Your task to perform on an android device: find photos in the google photos app Image 0: 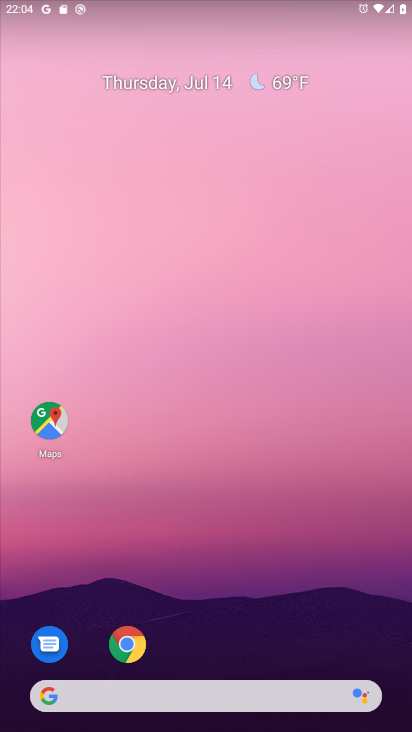
Step 0: drag from (213, 605) to (180, 84)
Your task to perform on an android device: find photos in the google photos app Image 1: 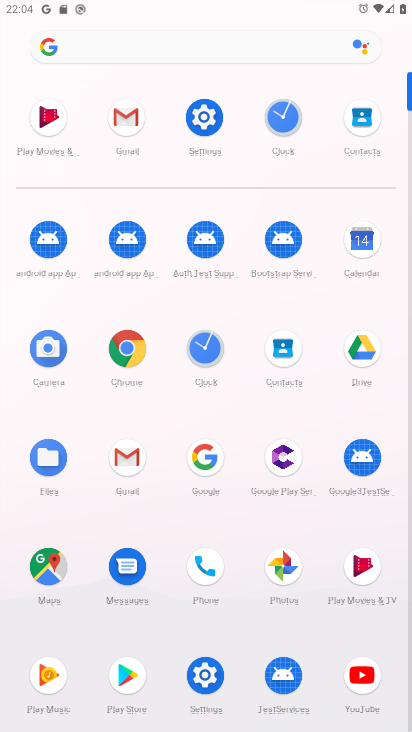
Step 1: click (290, 574)
Your task to perform on an android device: find photos in the google photos app Image 2: 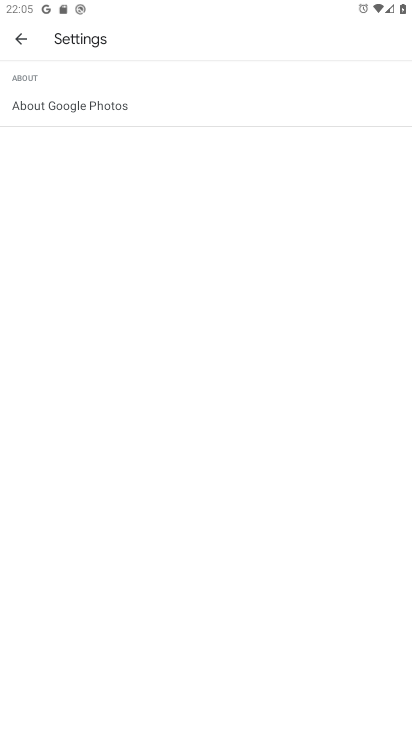
Step 2: click (16, 41)
Your task to perform on an android device: find photos in the google photos app Image 3: 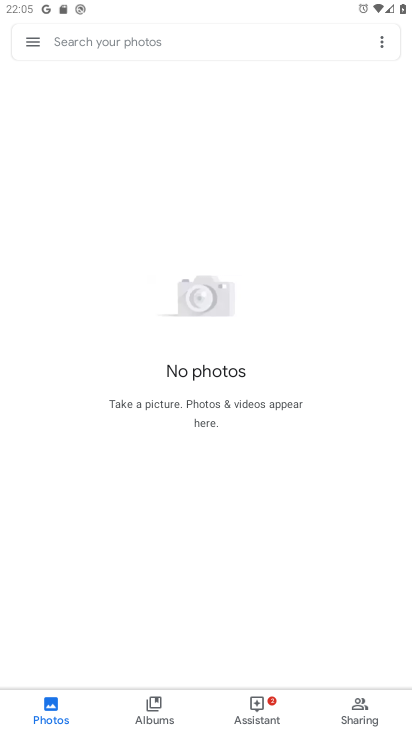
Step 3: task complete